Your task to perform on an android device: change the clock display to digital Image 0: 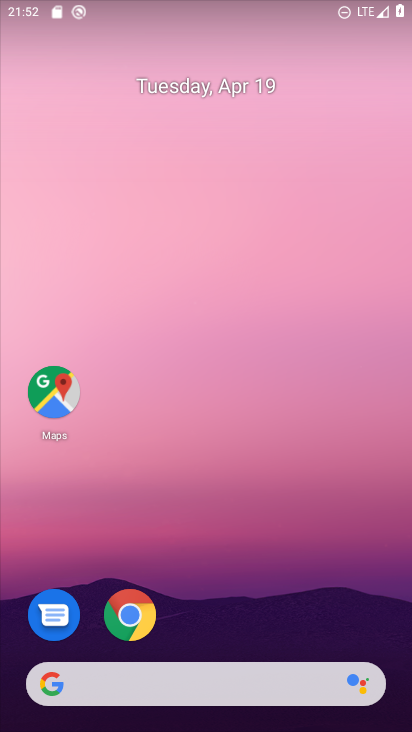
Step 0: drag from (288, 625) to (198, 2)
Your task to perform on an android device: change the clock display to digital Image 1: 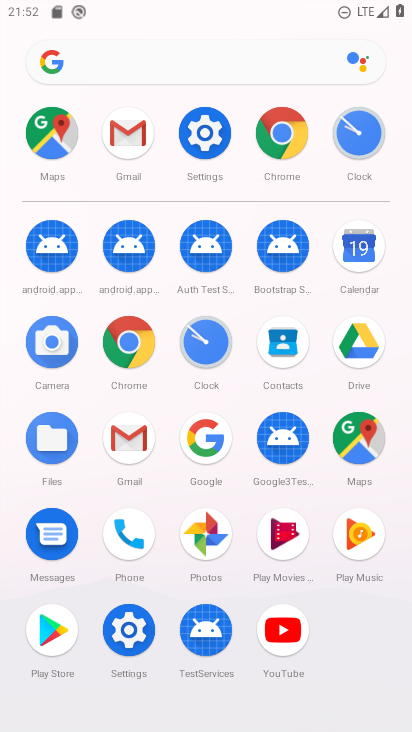
Step 1: click (199, 347)
Your task to perform on an android device: change the clock display to digital Image 2: 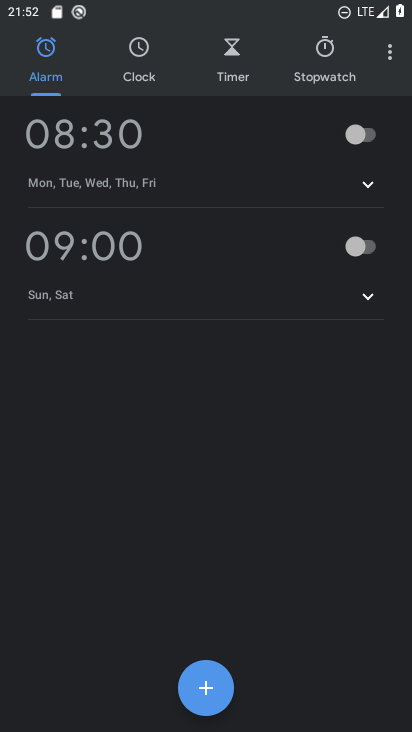
Step 2: click (397, 61)
Your task to perform on an android device: change the clock display to digital Image 3: 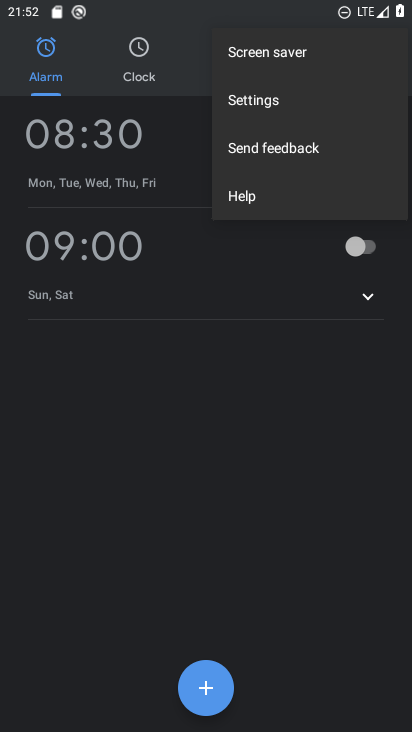
Step 3: click (286, 101)
Your task to perform on an android device: change the clock display to digital Image 4: 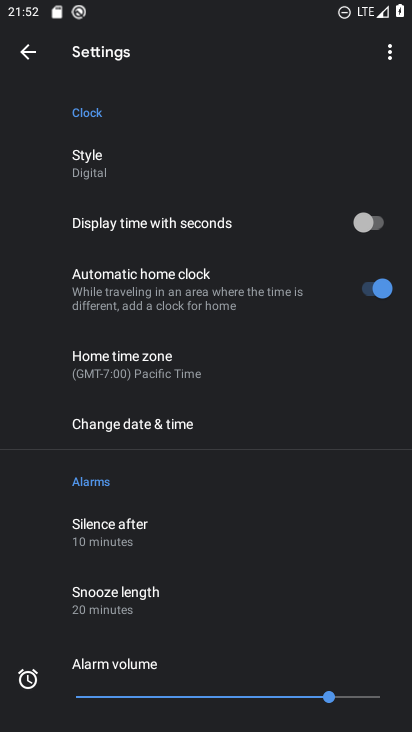
Step 4: click (141, 160)
Your task to perform on an android device: change the clock display to digital Image 5: 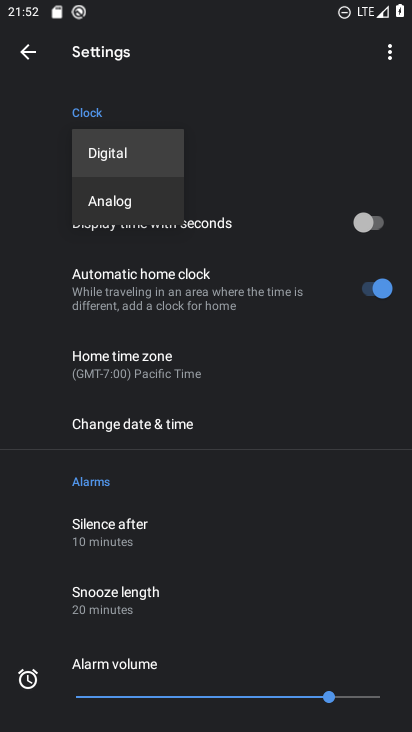
Step 5: task complete